Your task to perform on an android device: toggle javascript in the chrome app Image 0: 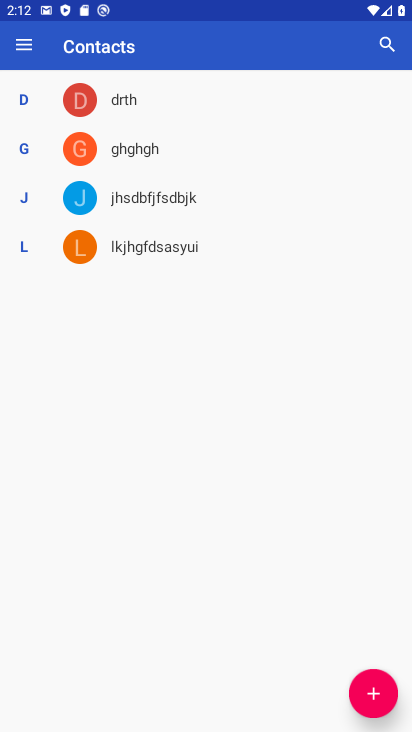
Step 0: press home button
Your task to perform on an android device: toggle javascript in the chrome app Image 1: 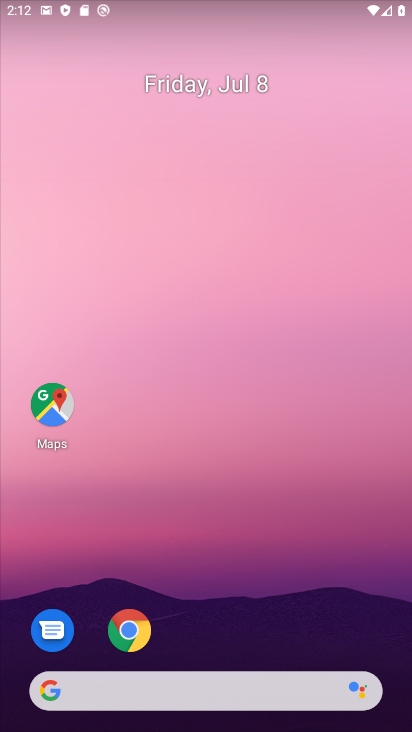
Step 1: drag from (265, 633) to (243, 26)
Your task to perform on an android device: toggle javascript in the chrome app Image 2: 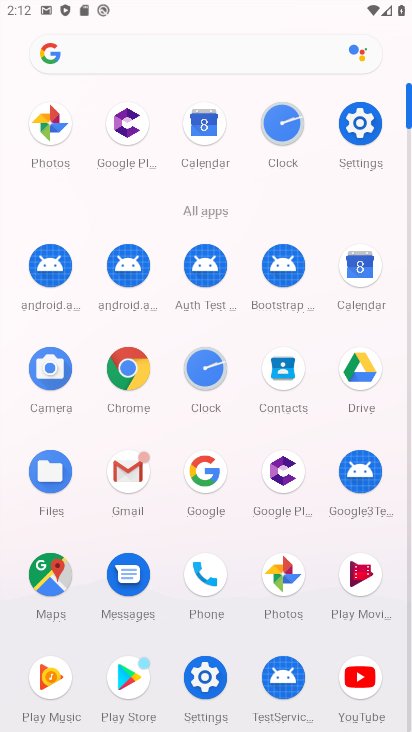
Step 2: click (353, 109)
Your task to perform on an android device: toggle javascript in the chrome app Image 3: 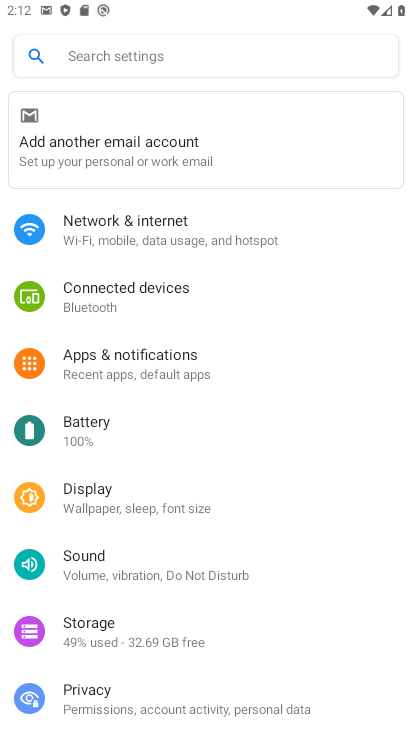
Step 3: press home button
Your task to perform on an android device: toggle javascript in the chrome app Image 4: 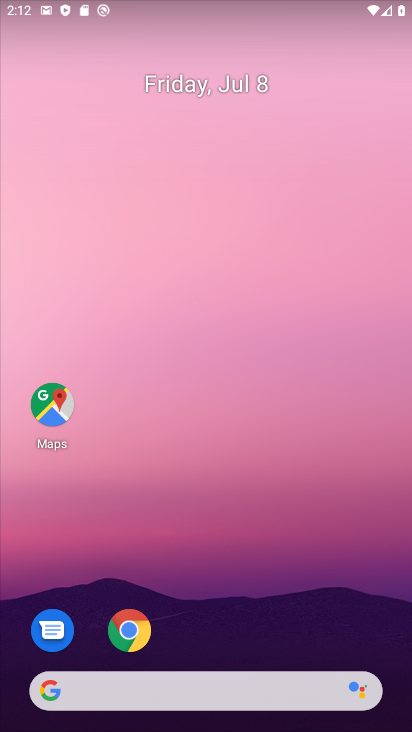
Step 4: drag from (278, 621) to (216, 108)
Your task to perform on an android device: toggle javascript in the chrome app Image 5: 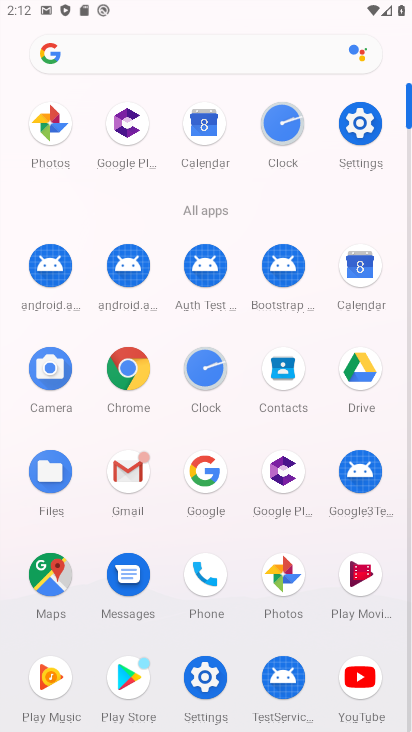
Step 5: click (143, 403)
Your task to perform on an android device: toggle javascript in the chrome app Image 6: 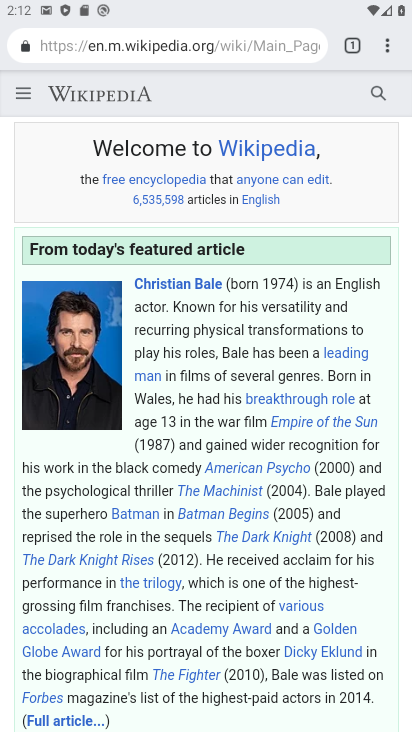
Step 6: click (384, 48)
Your task to perform on an android device: toggle javascript in the chrome app Image 7: 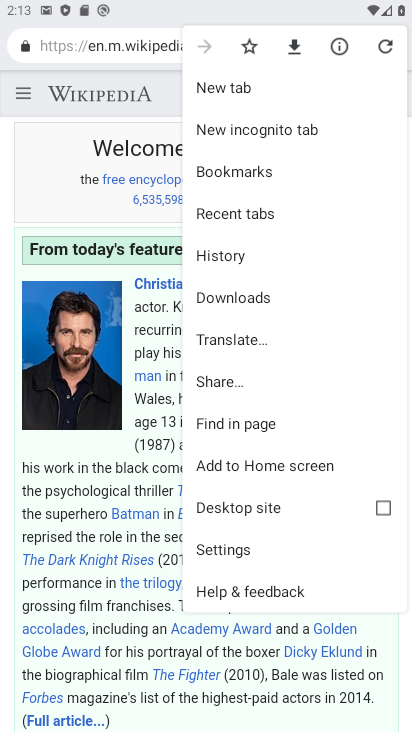
Step 7: click (270, 554)
Your task to perform on an android device: toggle javascript in the chrome app Image 8: 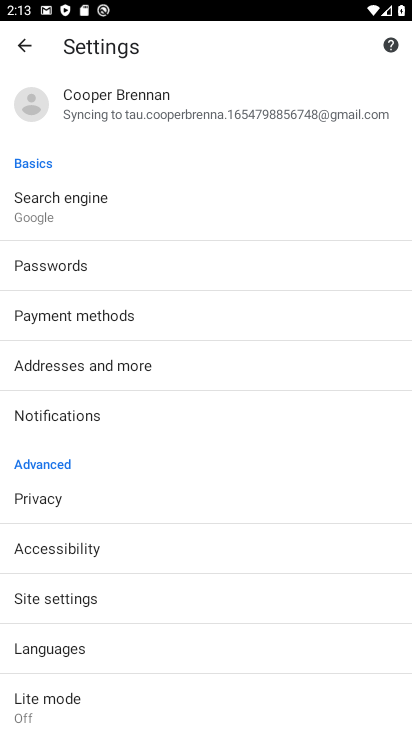
Step 8: click (103, 586)
Your task to perform on an android device: toggle javascript in the chrome app Image 9: 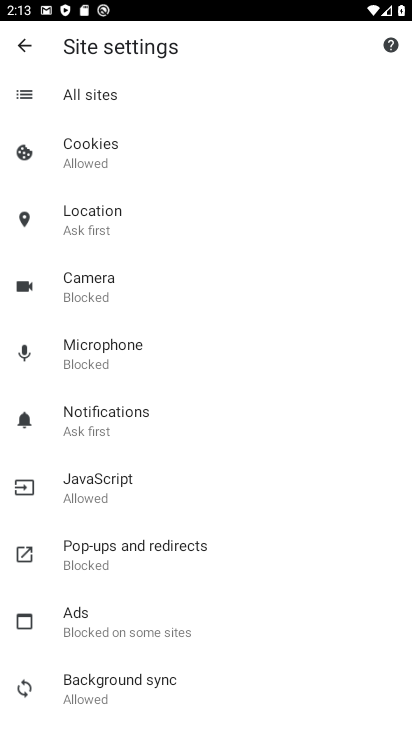
Step 9: click (110, 472)
Your task to perform on an android device: toggle javascript in the chrome app Image 10: 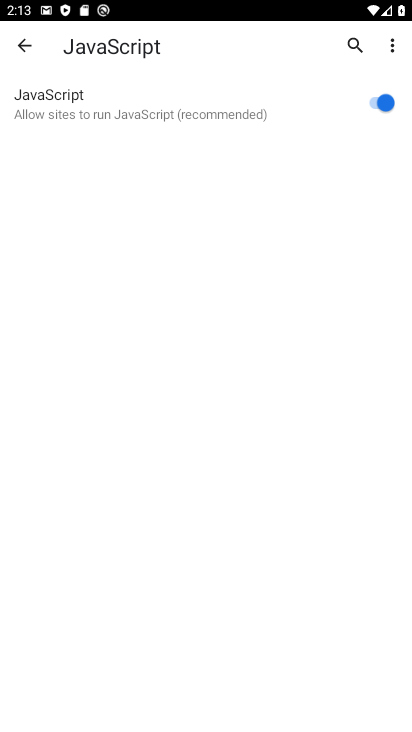
Step 10: task complete